Your task to perform on an android device: Search for Mexican restaurants on Maps Image 0: 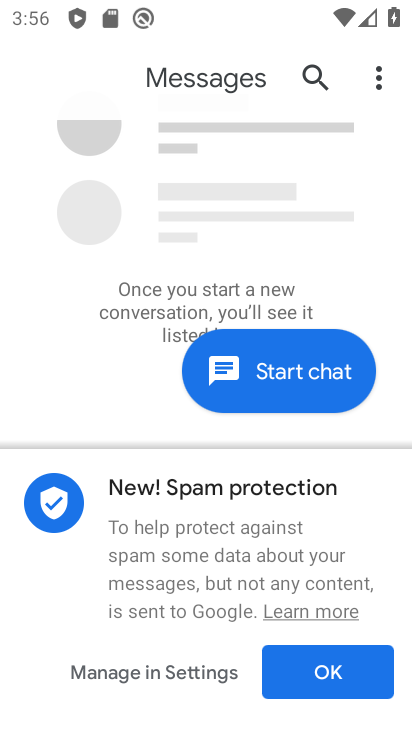
Step 0: press home button
Your task to perform on an android device: Search for Mexican restaurants on Maps Image 1: 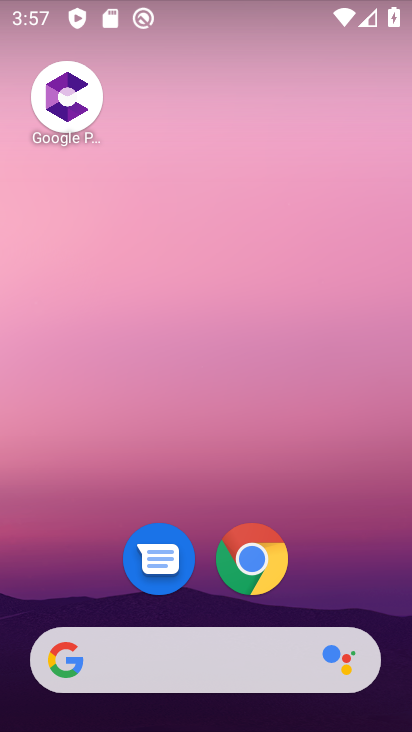
Step 1: drag from (356, 596) to (364, 119)
Your task to perform on an android device: Search for Mexican restaurants on Maps Image 2: 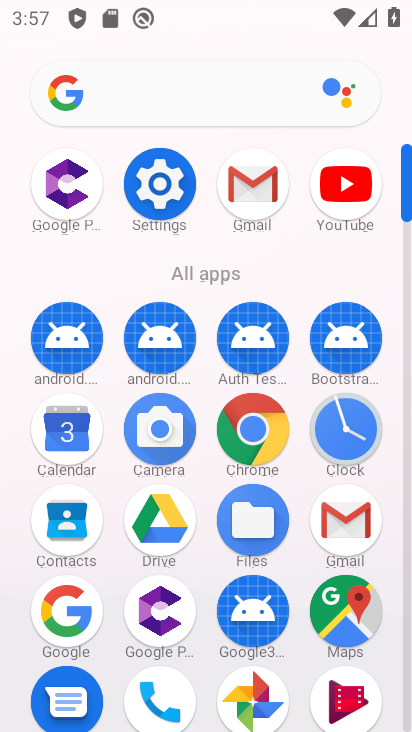
Step 2: click (333, 606)
Your task to perform on an android device: Search for Mexican restaurants on Maps Image 3: 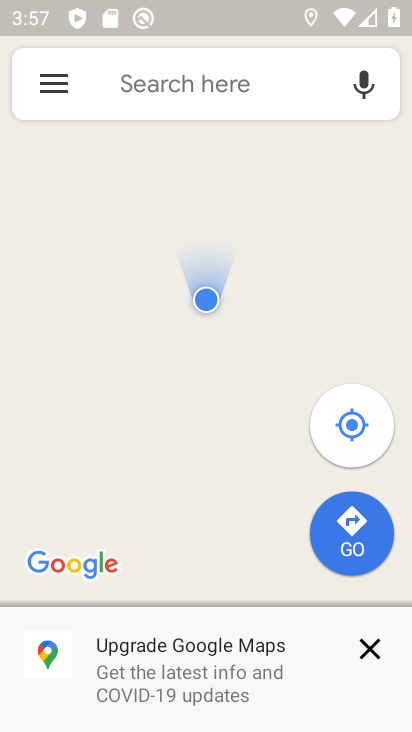
Step 3: click (130, 85)
Your task to perform on an android device: Search for Mexican restaurants on Maps Image 4: 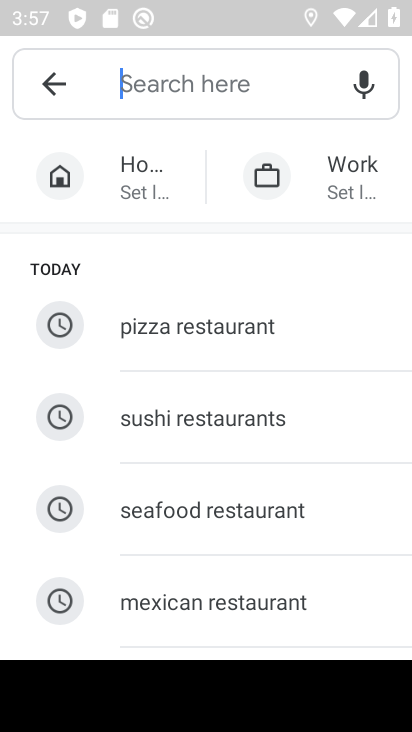
Step 4: type " Mexican restaurants"
Your task to perform on an android device: Search for Mexican restaurants on Maps Image 5: 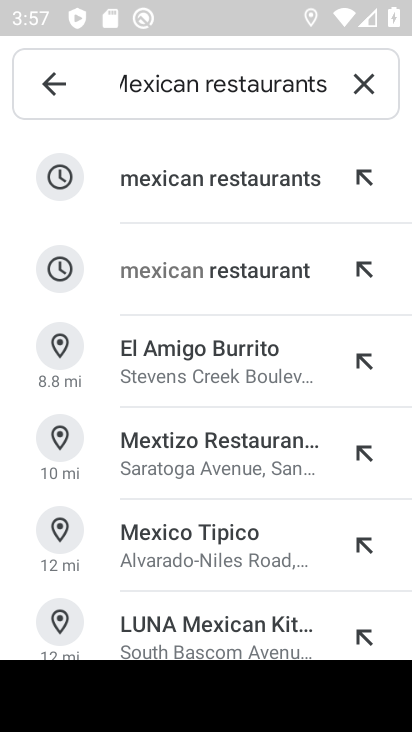
Step 5: click (210, 181)
Your task to perform on an android device: Search for Mexican restaurants on Maps Image 6: 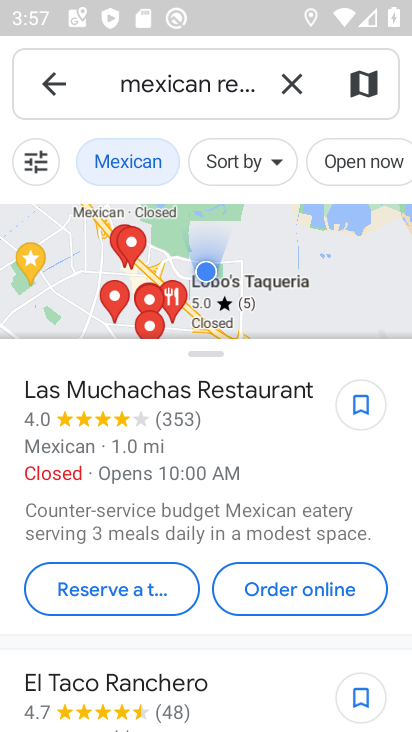
Step 6: task complete